Your task to perform on an android device: toggle location history Image 0: 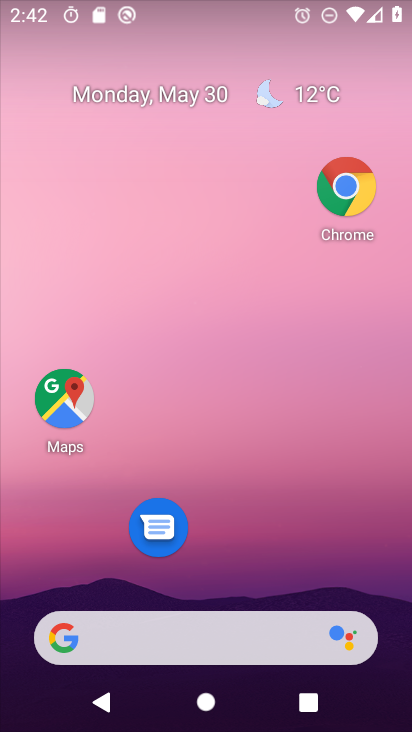
Step 0: click (274, 173)
Your task to perform on an android device: toggle location history Image 1: 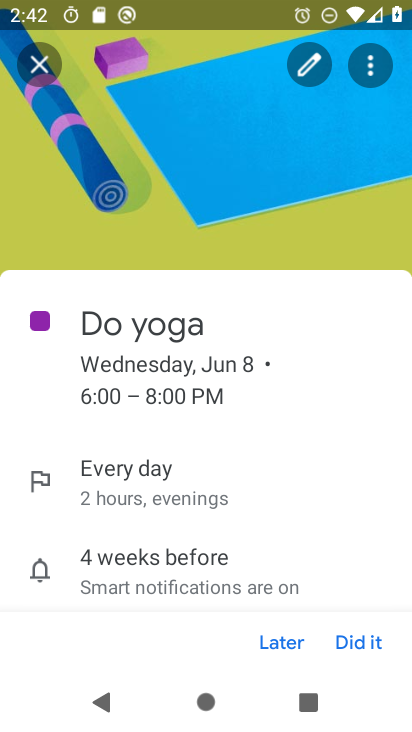
Step 1: press home button
Your task to perform on an android device: toggle location history Image 2: 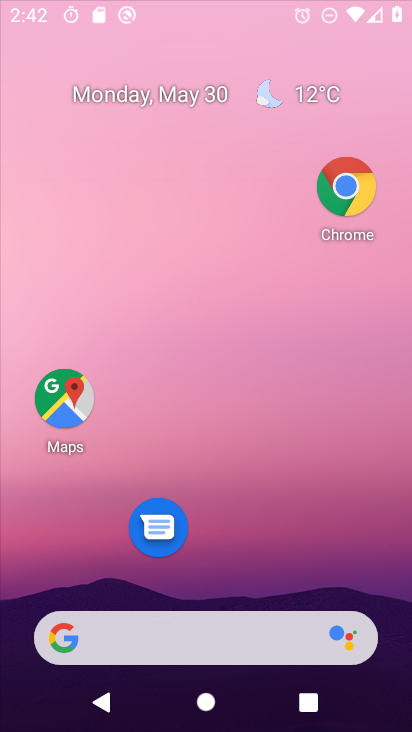
Step 2: drag from (237, 650) to (284, 213)
Your task to perform on an android device: toggle location history Image 3: 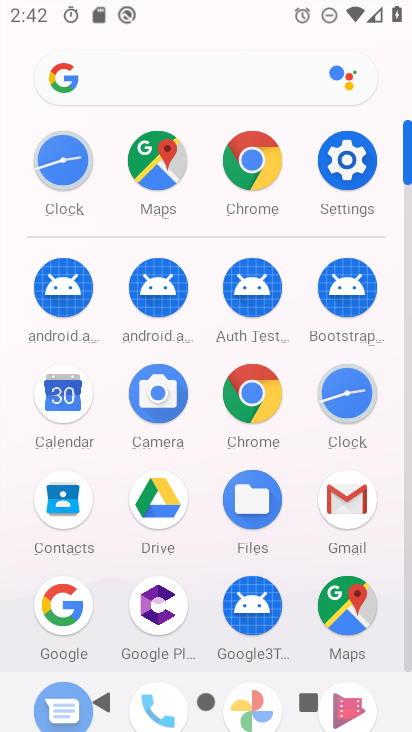
Step 3: click (339, 170)
Your task to perform on an android device: toggle location history Image 4: 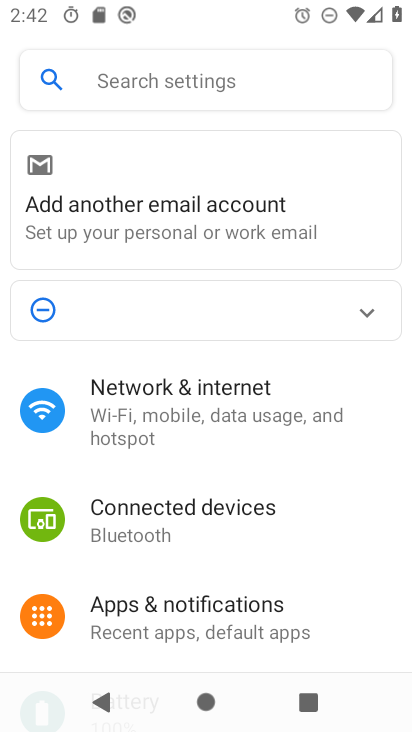
Step 4: drag from (267, 553) to (411, 67)
Your task to perform on an android device: toggle location history Image 5: 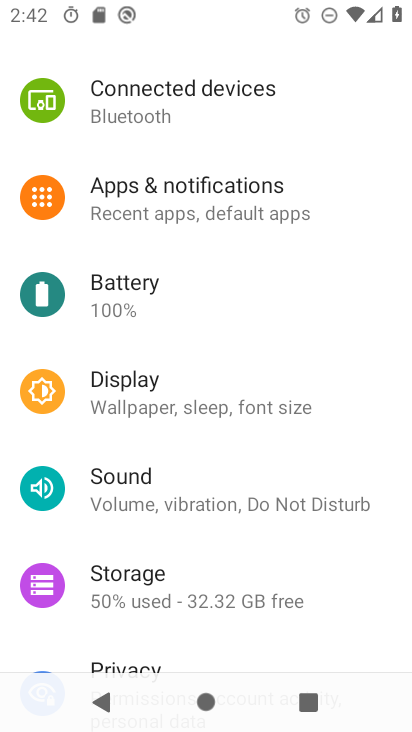
Step 5: drag from (234, 537) to (341, 167)
Your task to perform on an android device: toggle location history Image 6: 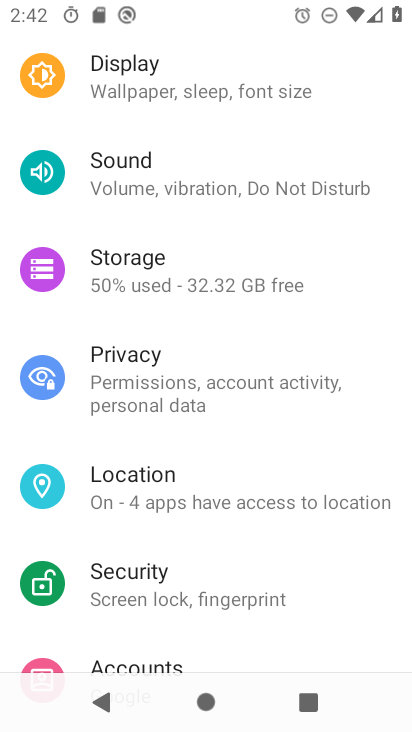
Step 6: click (190, 478)
Your task to perform on an android device: toggle location history Image 7: 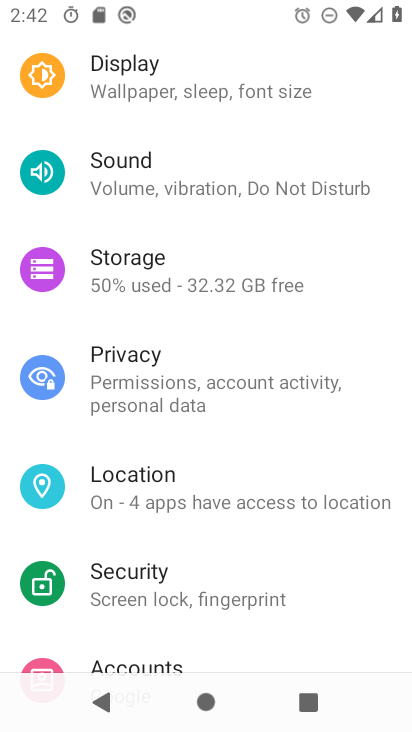
Step 7: click (190, 478)
Your task to perform on an android device: toggle location history Image 8: 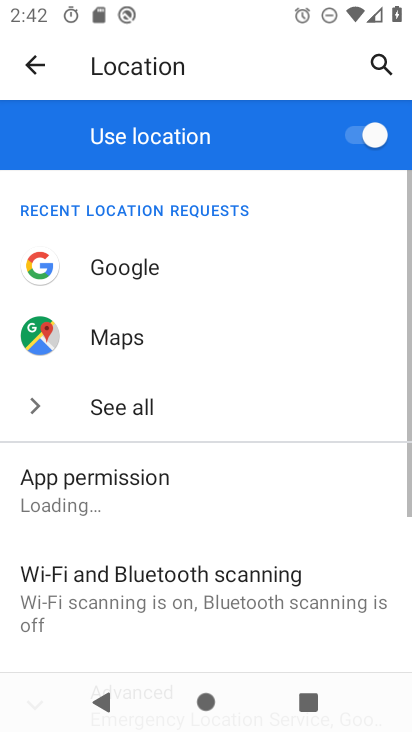
Step 8: drag from (262, 519) to (307, 291)
Your task to perform on an android device: toggle location history Image 9: 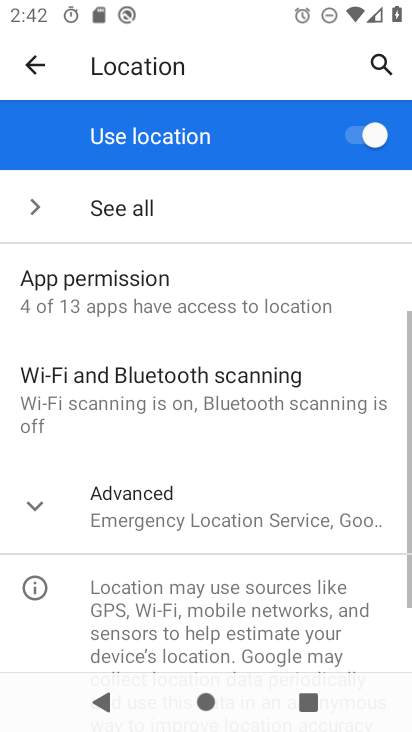
Step 9: click (173, 472)
Your task to perform on an android device: toggle location history Image 10: 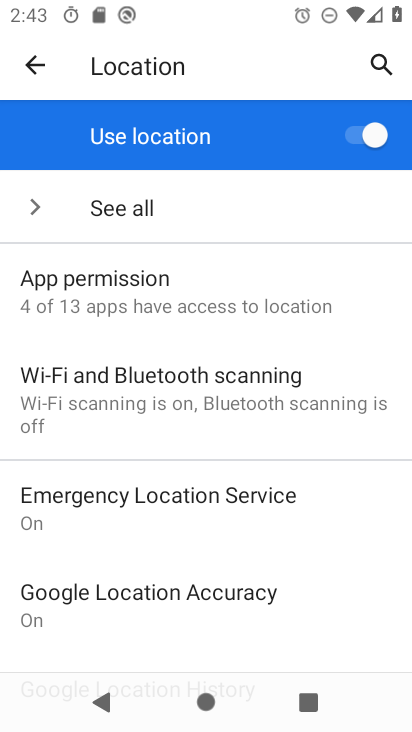
Step 10: drag from (237, 572) to (315, 277)
Your task to perform on an android device: toggle location history Image 11: 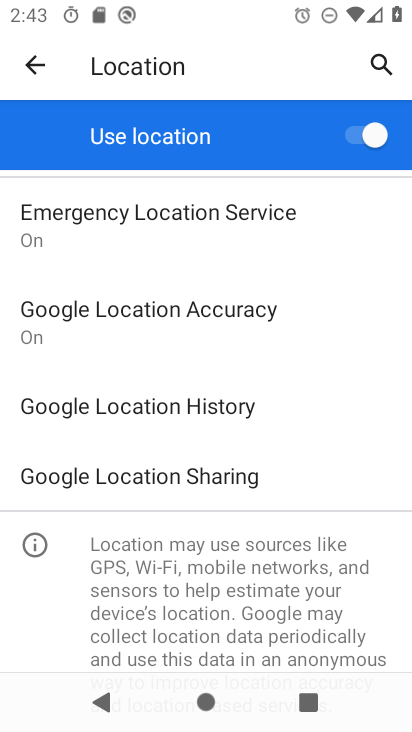
Step 11: click (165, 409)
Your task to perform on an android device: toggle location history Image 12: 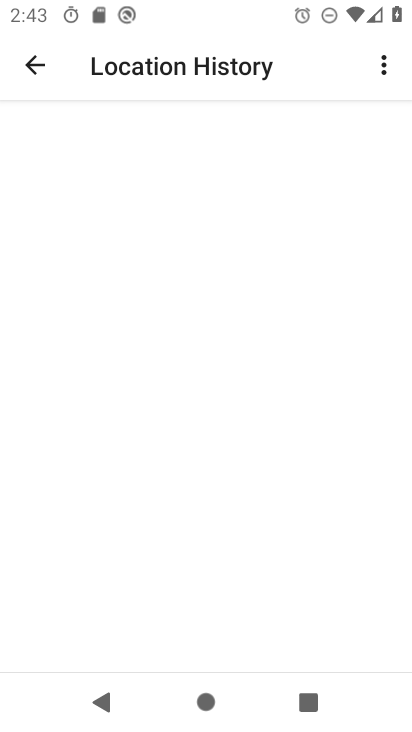
Step 12: drag from (299, 544) to (399, 184)
Your task to perform on an android device: toggle location history Image 13: 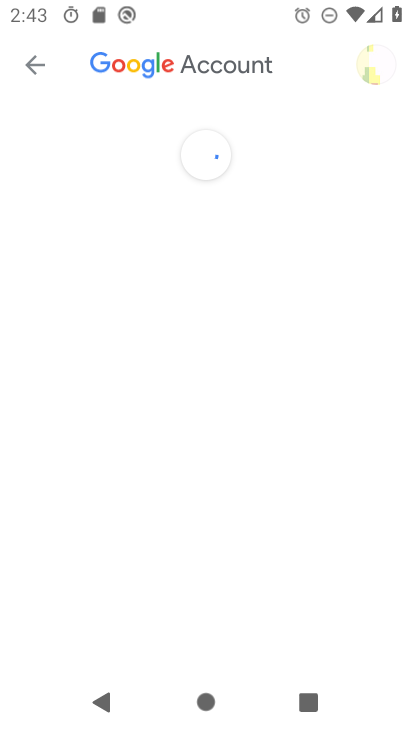
Step 13: drag from (203, 559) to (288, 253)
Your task to perform on an android device: toggle location history Image 14: 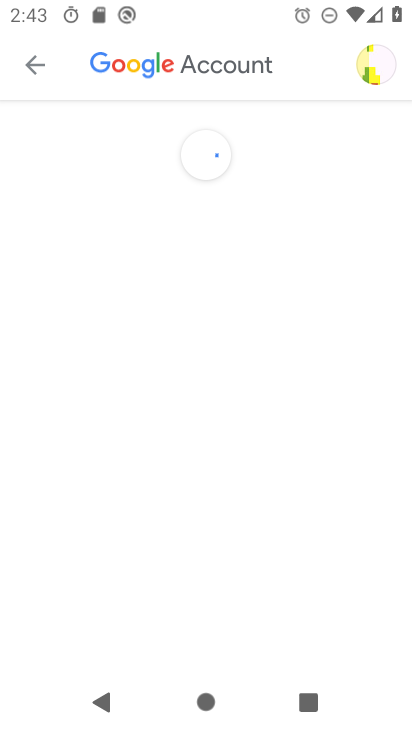
Step 14: drag from (254, 558) to (313, 27)
Your task to perform on an android device: toggle location history Image 15: 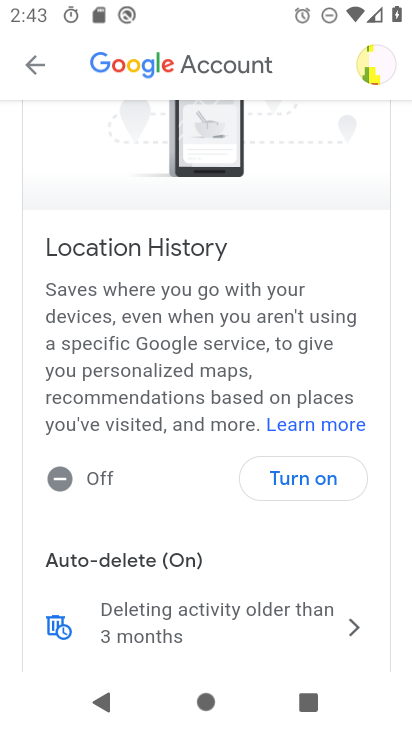
Step 15: drag from (262, 516) to (296, 166)
Your task to perform on an android device: toggle location history Image 16: 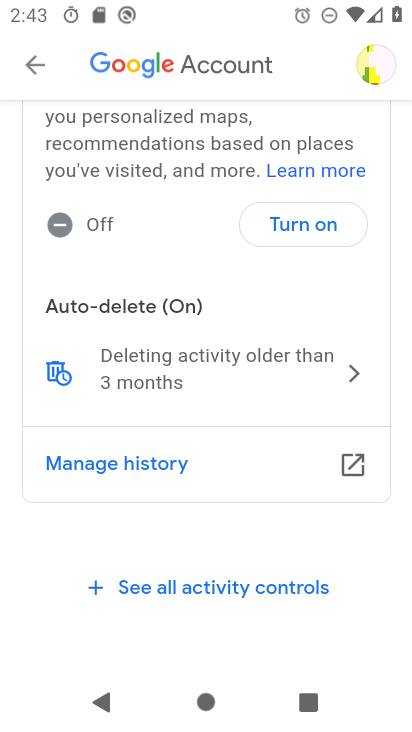
Step 16: click (281, 231)
Your task to perform on an android device: toggle location history Image 17: 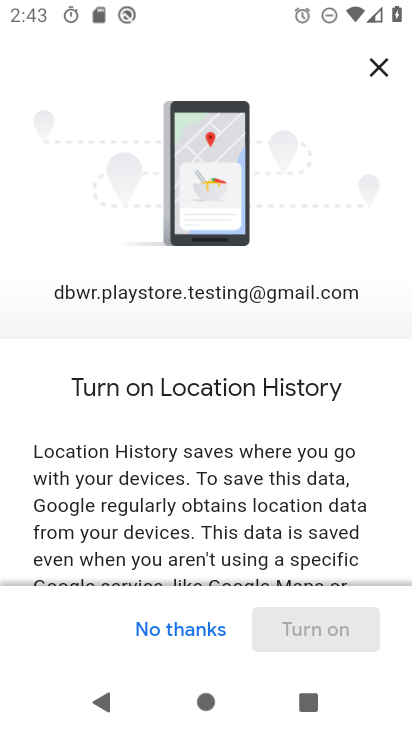
Step 17: drag from (215, 493) to (374, 3)
Your task to perform on an android device: toggle location history Image 18: 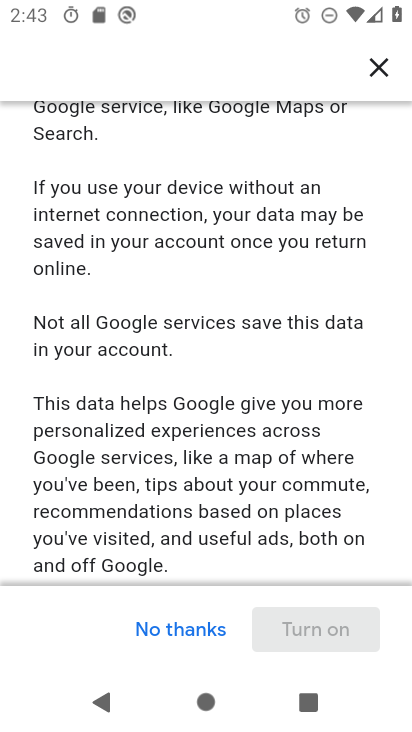
Step 18: drag from (230, 414) to (303, 33)
Your task to perform on an android device: toggle location history Image 19: 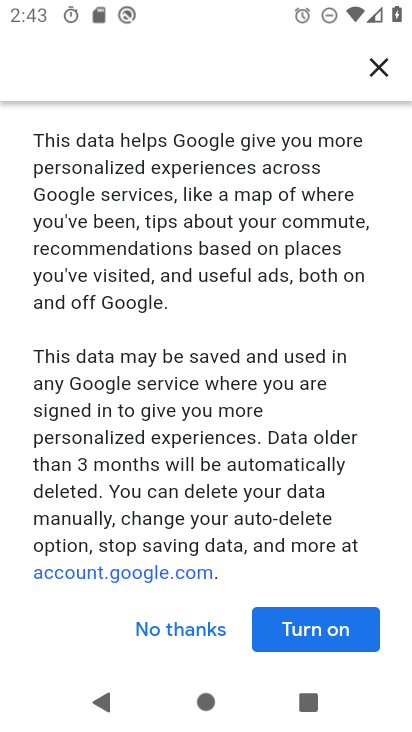
Step 19: click (285, 631)
Your task to perform on an android device: toggle location history Image 20: 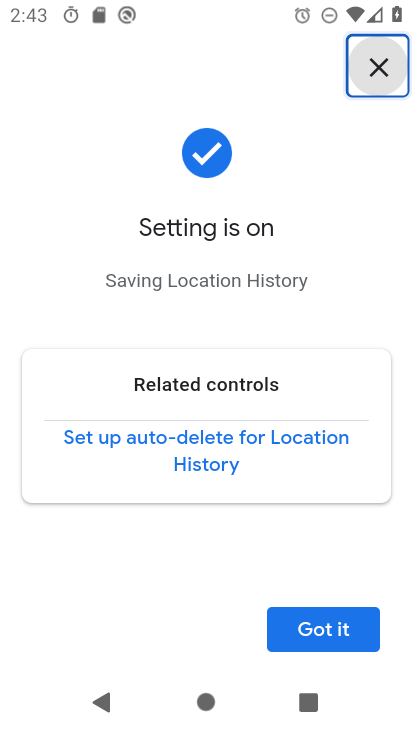
Step 20: click (326, 629)
Your task to perform on an android device: toggle location history Image 21: 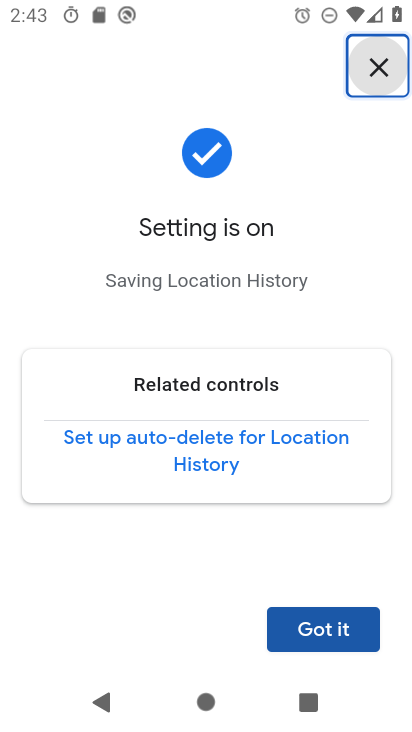
Step 21: task complete